Your task to perform on an android device: turn off improve location accuracy Image 0: 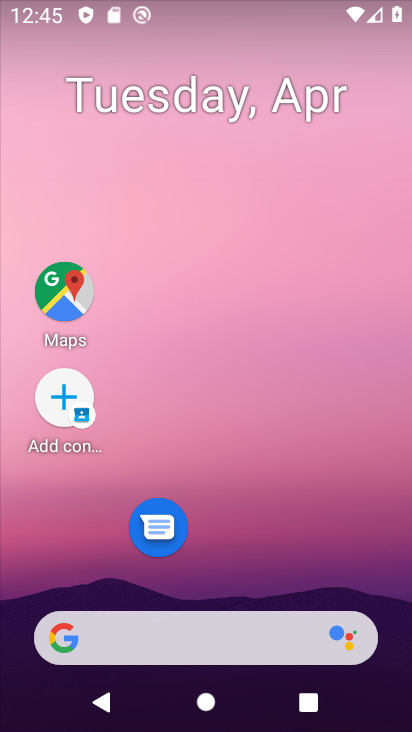
Step 0: drag from (216, 594) to (289, 24)
Your task to perform on an android device: turn off improve location accuracy Image 1: 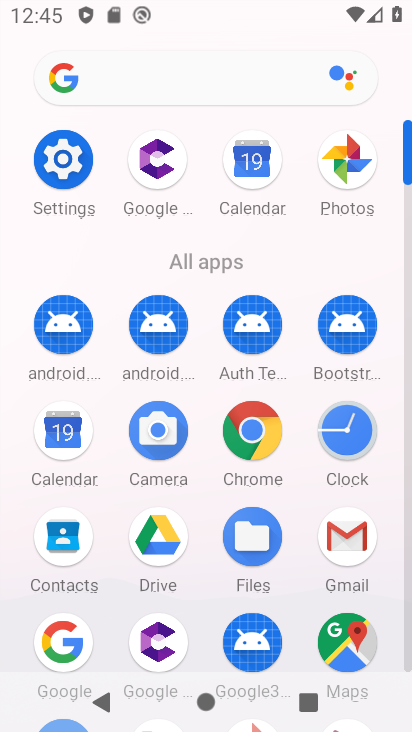
Step 1: click (58, 161)
Your task to perform on an android device: turn off improve location accuracy Image 2: 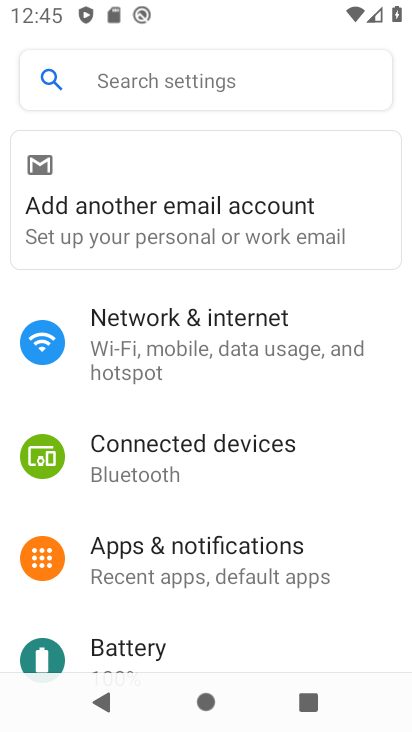
Step 2: drag from (222, 503) to (306, 328)
Your task to perform on an android device: turn off improve location accuracy Image 3: 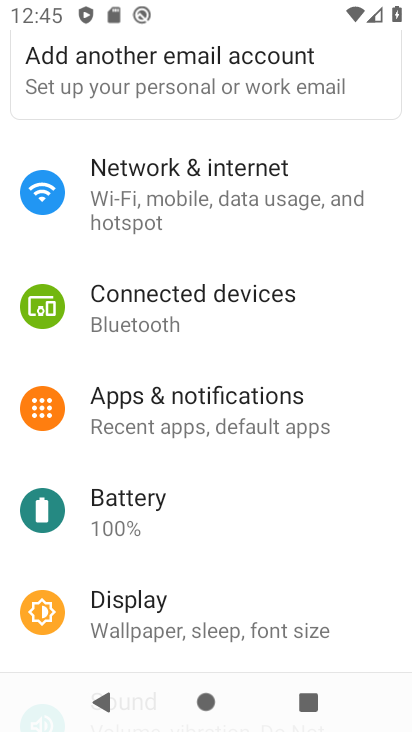
Step 3: drag from (194, 533) to (217, 390)
Your task to perform on an android device: turn off improve location accuracy Image 4: 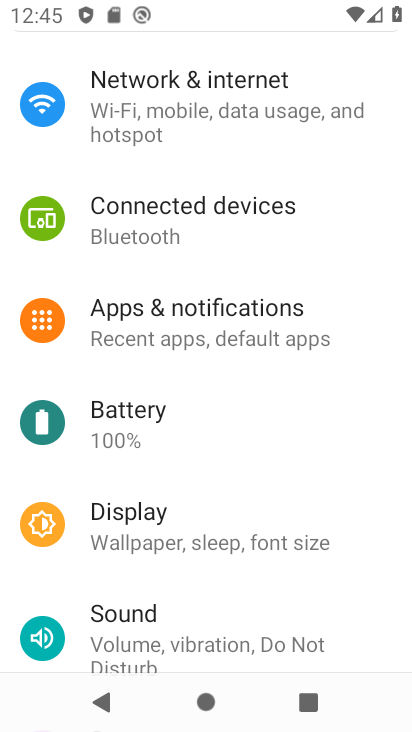
Step 4: drag from (221, 499) to (250, 369)
Your task to perform on an android device: turn off improve location accuracy Image 5: 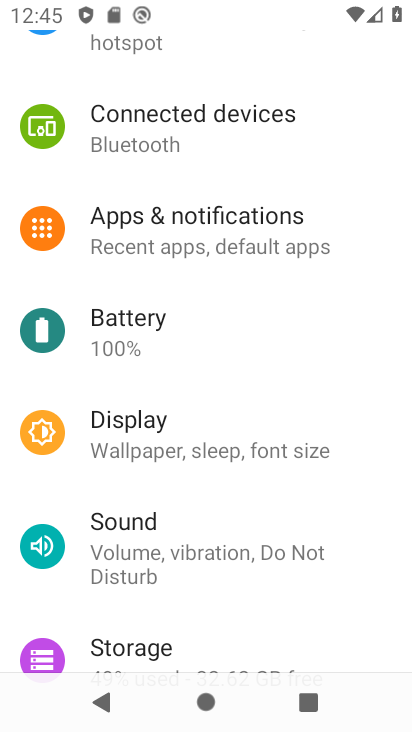
Step 5: drag from (194, 492) to (210, 373)
Your task to perform on an android device: turn off improve location accuracy Image 6: 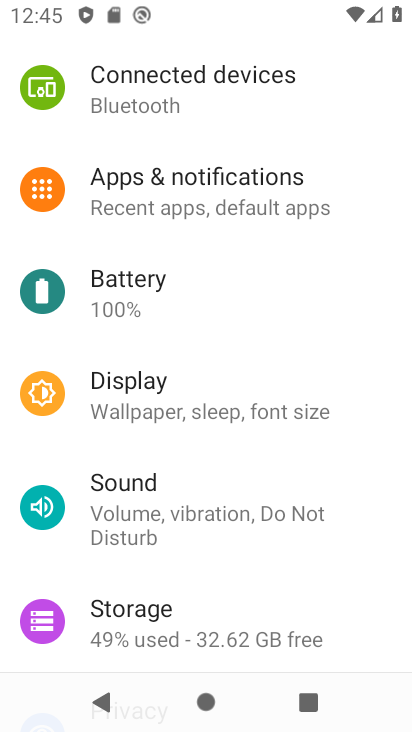
Step 6: drag from (191, 565) to (199, 403)
Your task to perform on an android device: turn off improve location accuracy Image 7: 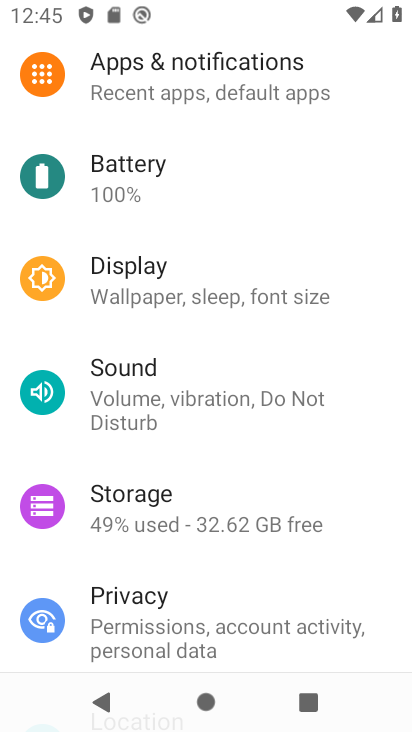
Step 7: drag from (194, 522) to (203, 434)
Your task to perform on an android device: turn off improve location accuracy Image 8: 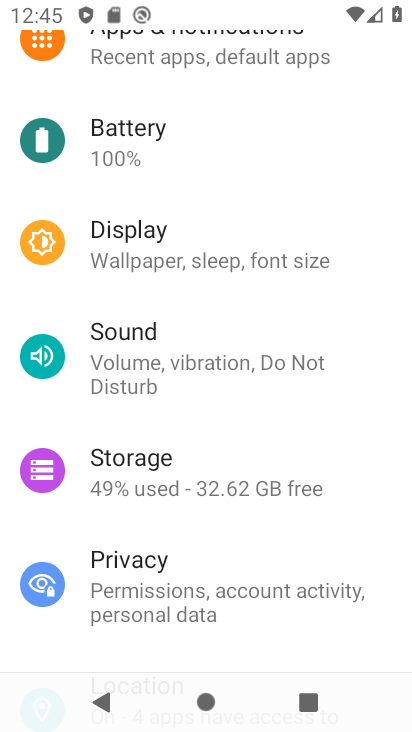
Step 8: drag from (217, 560) to (252, 403)
Your task to perform on an android device: turn off improve location accuracy Image 9: 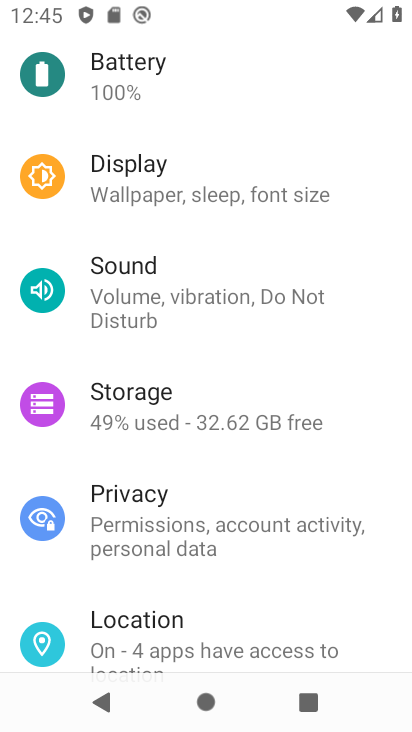
Step 9: drag from (241, 566) to (235, 398)
Your task to perform on an android device: turn off improve location accuracy Image 10: 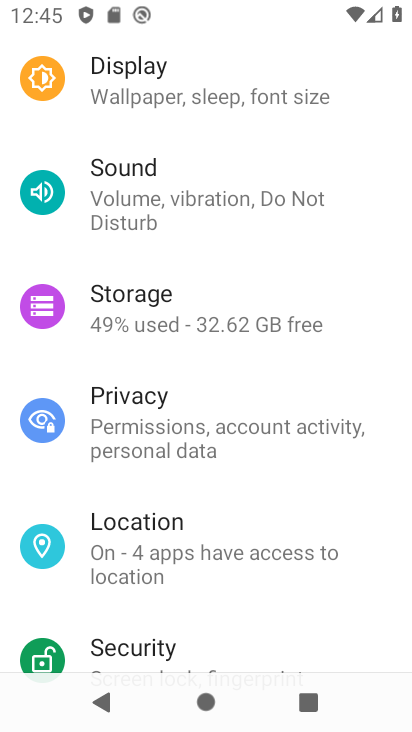
Step 10: click (152, 523)
Your task to perform on an android device: turn off improve location accuracy Image 11: 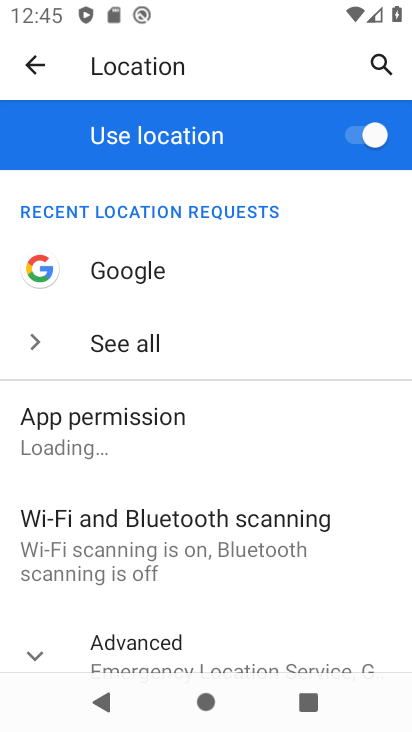
Step 11: drag from (233, 595) to (231, 410)
Your task to perform on an android device: turn off improve location accuracy Image 12: 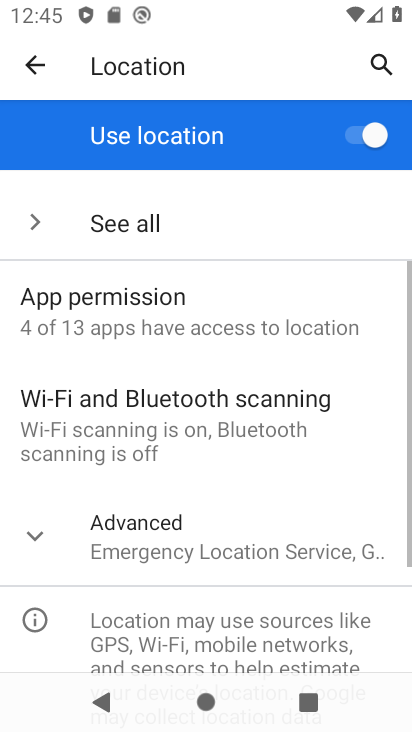
Step 12: click (221, 550)
Your task to perform on an android device: turn off improve location accuracy Image 13: 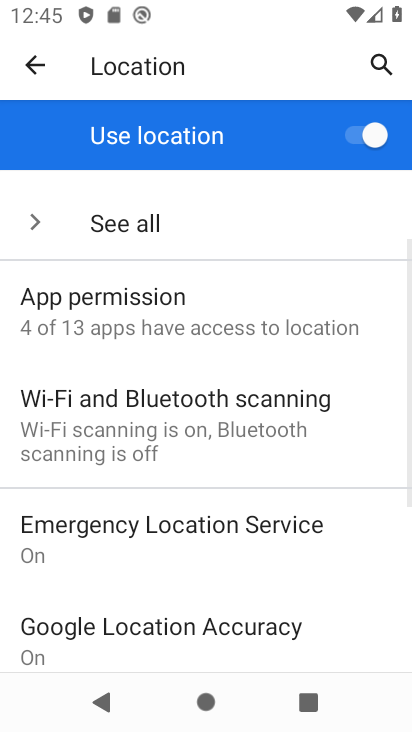
Step 13: drag from (217, 559) to (243, 435)
Your task to perform on an android device: turn off improve location accuracy Image 14: 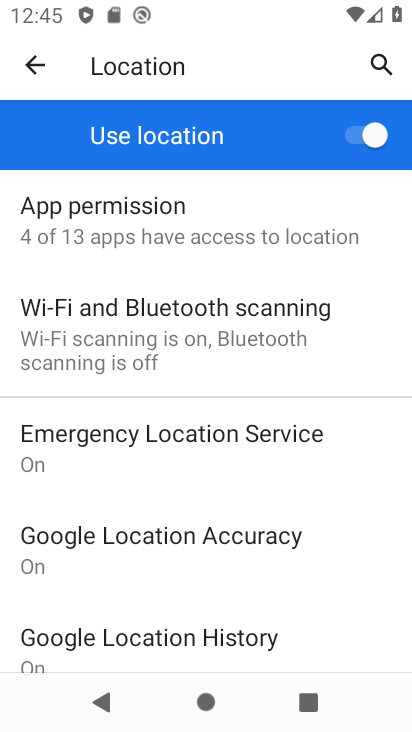
Step 14: click (231, 532)
Your task to perform on an android device: turn off improve location accuracy Image 15: 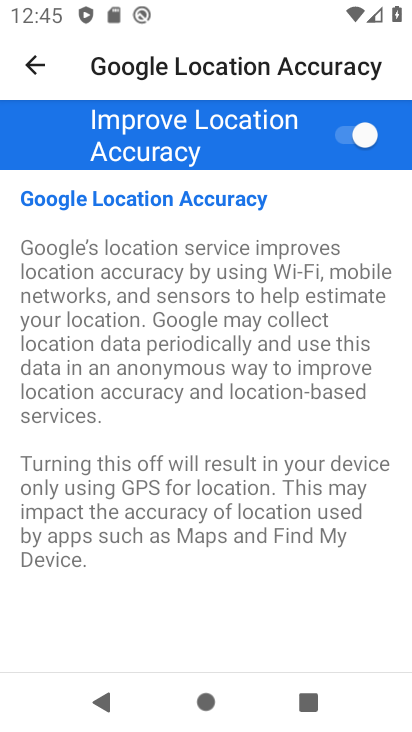
Step 15: click (367, 135)
Your task to perform on an android device: turn off improve location accuracy Image 16: 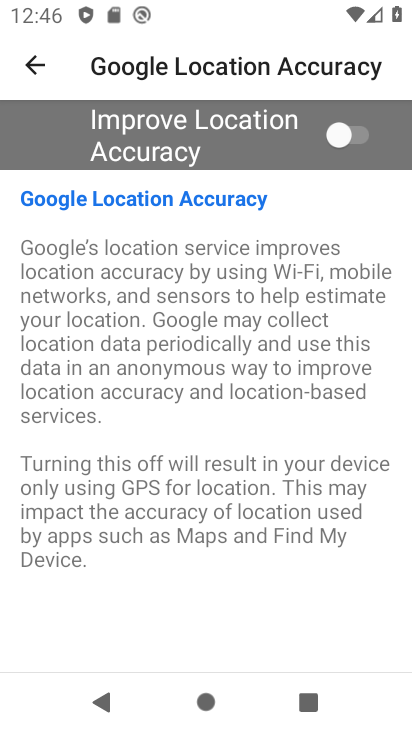
Step 16: task complete